Your task to perform on an android device: install app "Messages" Image 0: 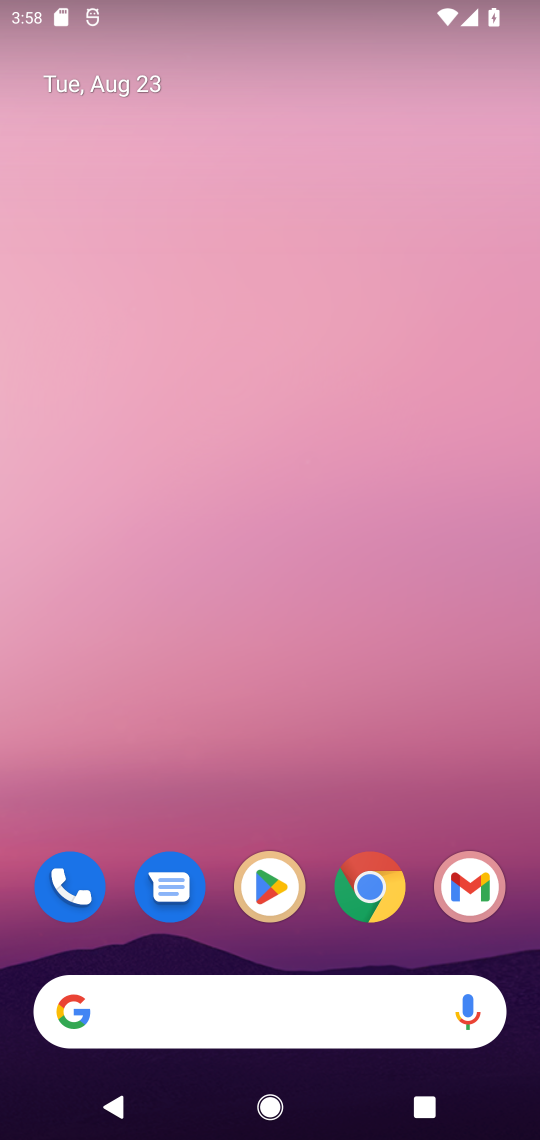
Step 0: click (256, 890)
Your task to perform on an android device: install app "Messages" Image 1: 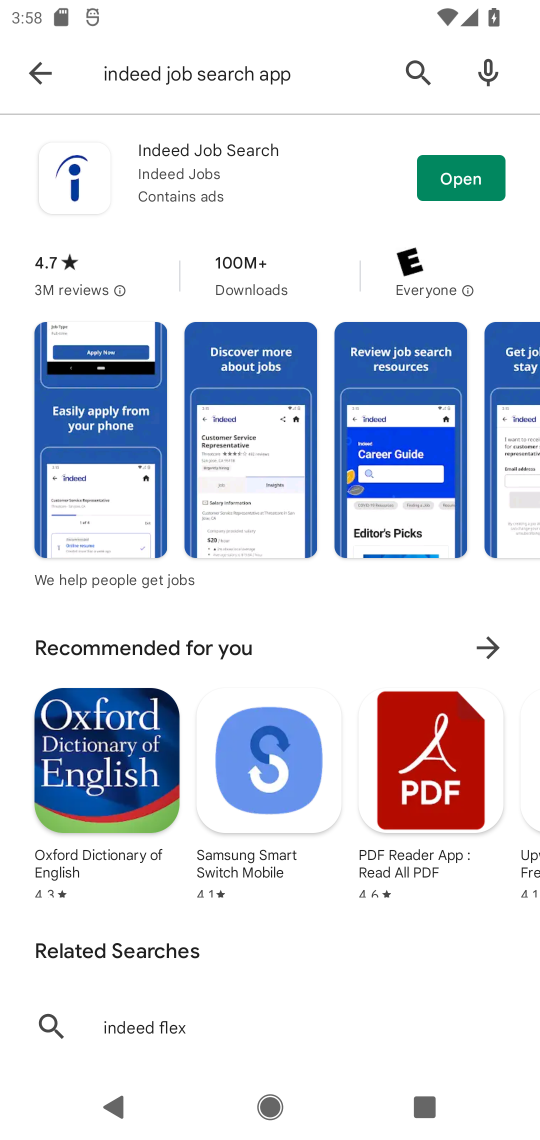
Step 1: click (48, 79)
Your task to perform on an android device: install app "Messages" Image 2: 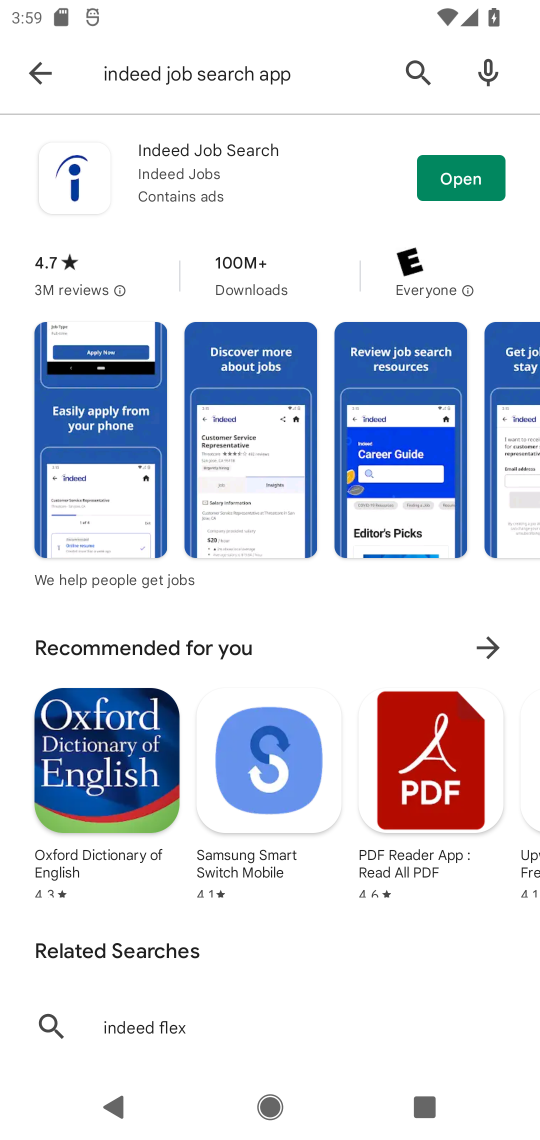
Step 2: click (34, 69)
Your task to perform on an android device: install app "Messages" Image 3: 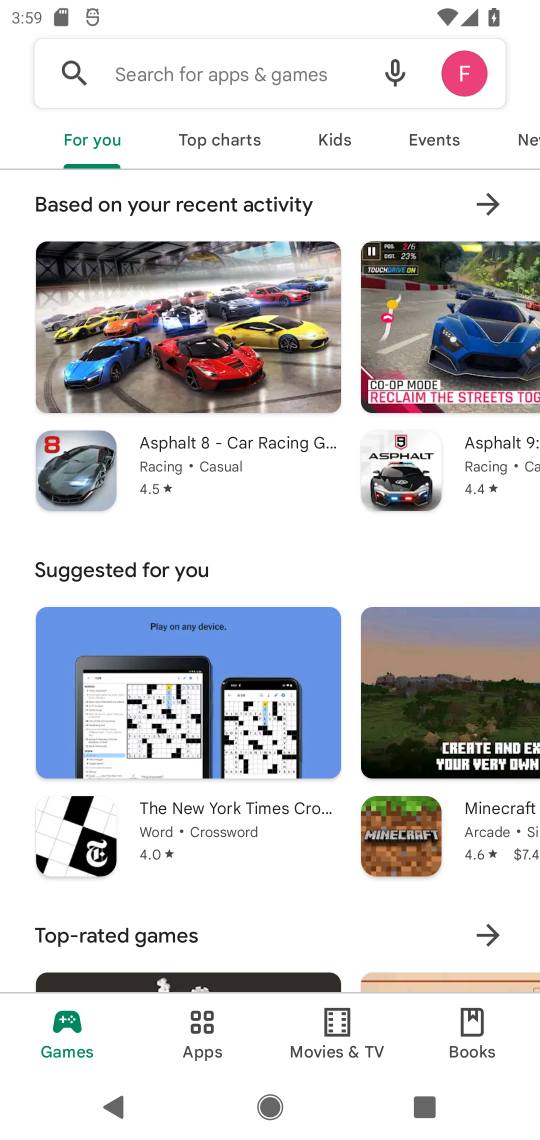
Step 3: click (213, 68)
Your task to perform on an android device: install app "Messages" Image 4: 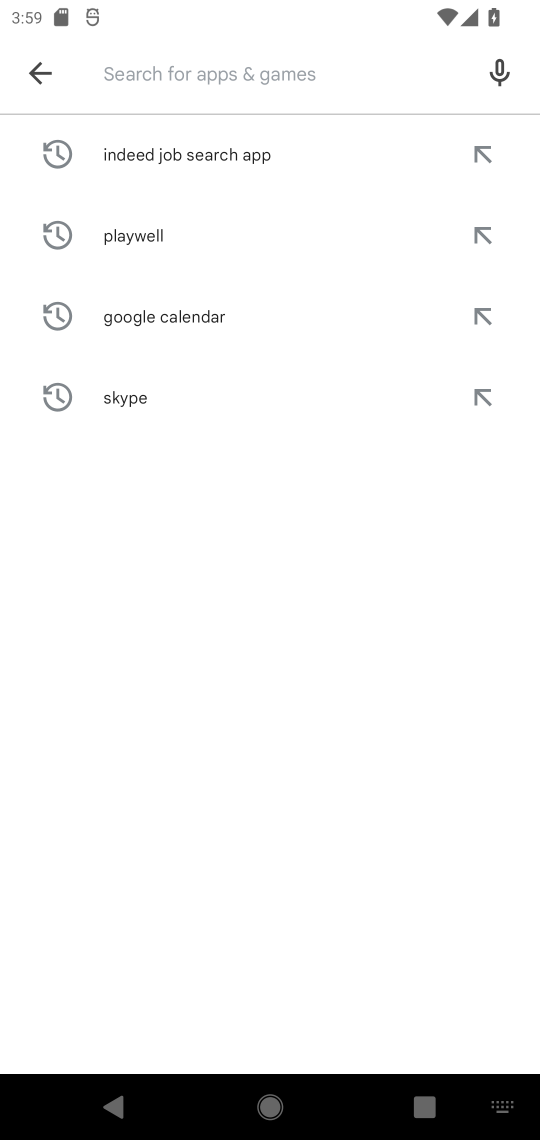
Step 4: type "Messages"
Your task to perform on an android device: install app "Messages" Image 5: 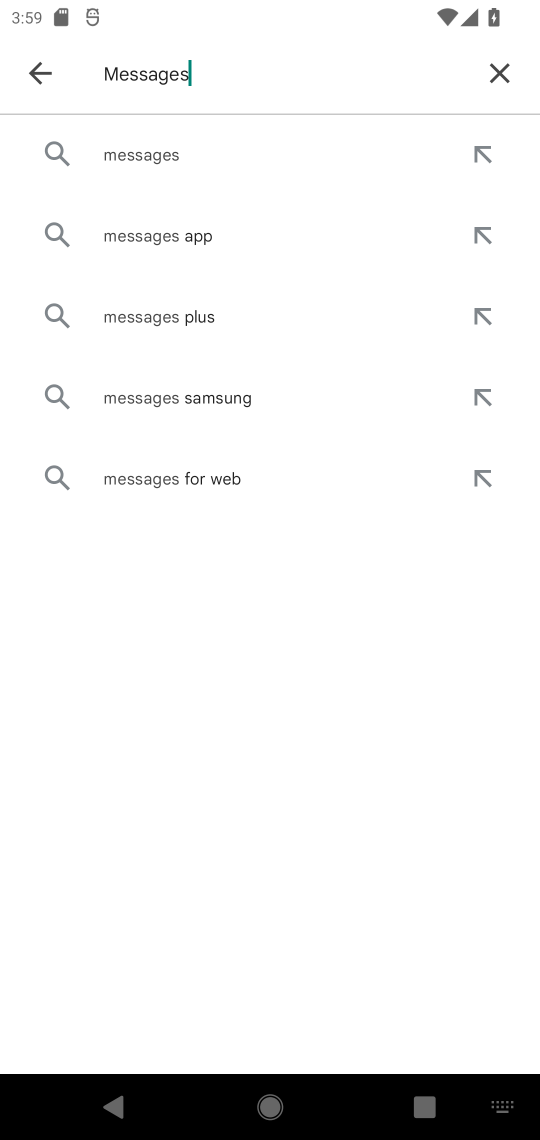
Step 5: click (133, 146)
Your task to perform on an android device: install app "Messages" Image 6: 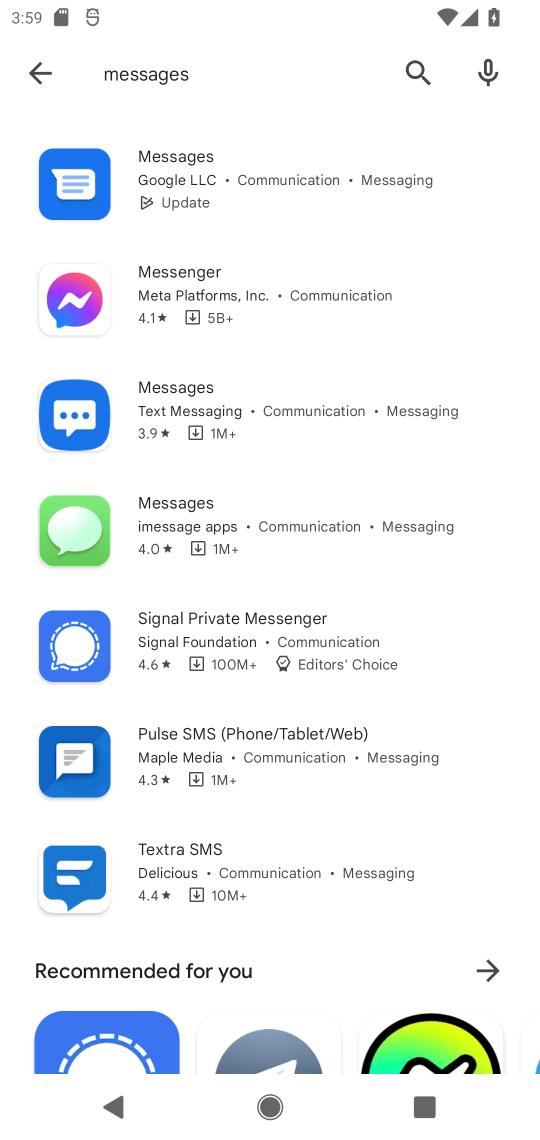
Step 6: click (171, 174)
Your task to perform on an android device: install app "Messages" Image 7: 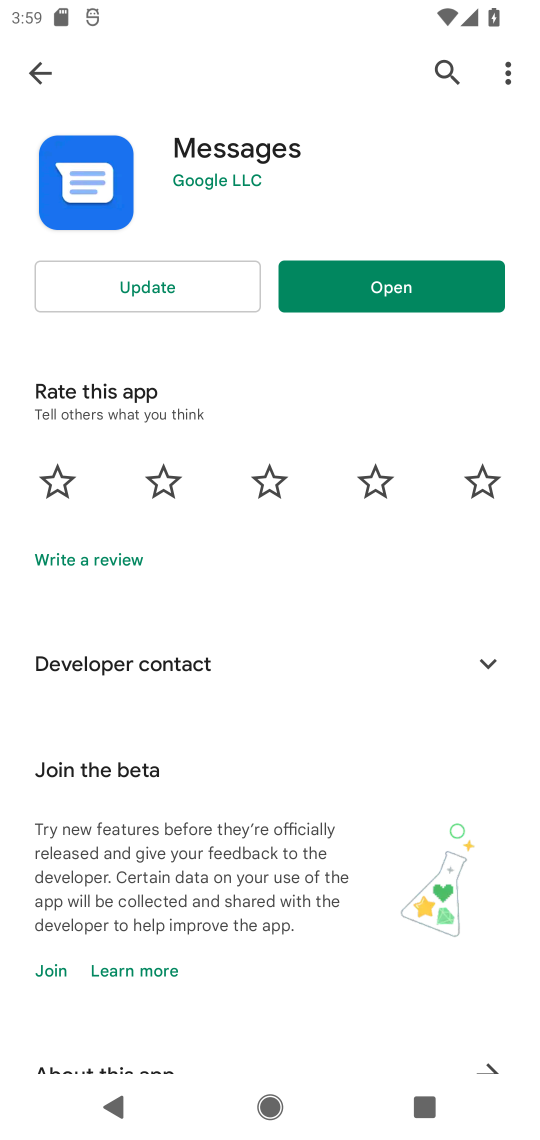
Step 7: task complete